Your task to perform on an android device: Add "dell xps" to the cart on costco.com Image 0: 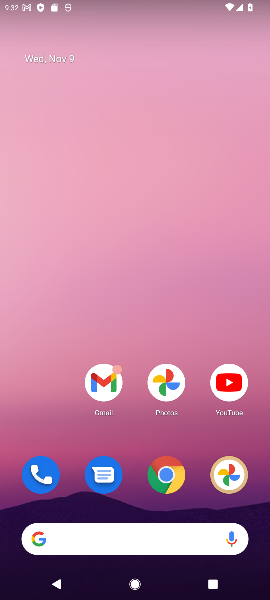
Step 0: click (171, 474)
Your task to perform on an android device: Add "dell xps" to the cart on costco.com Image 1: 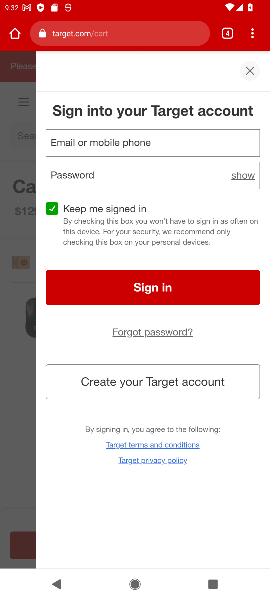
Step 1: click (231, 35)
Your task to perform on an android device: Add "dell xps" to the cart on costco.com Image 2: 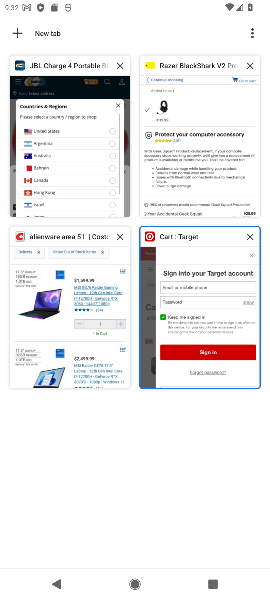
Step 2: click (62, 281)
Your task to perform on an android device: Add "dell xps" to the cart on costco.com Image 3: 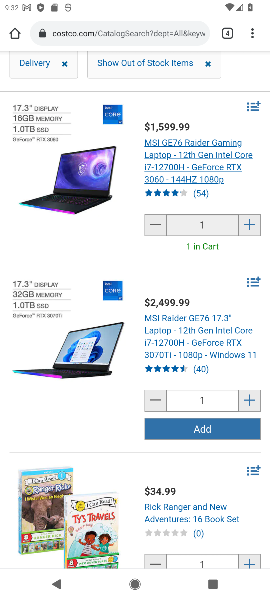
Step 3: drag from (124, 198) to (86, 594)
Your task to perform on an android device: Add "dell xps" to the cart on costco.com Image 4: 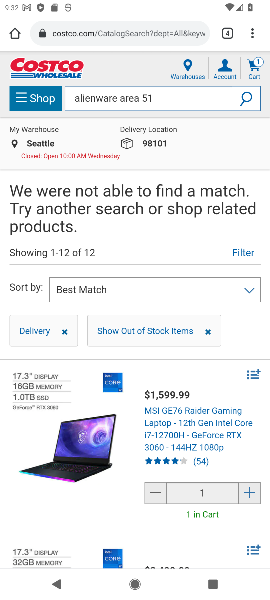
Step 4: click (184, 99)
Your task to perform on an android device: Add "dell xps" to the cart on costco.com Image 5: 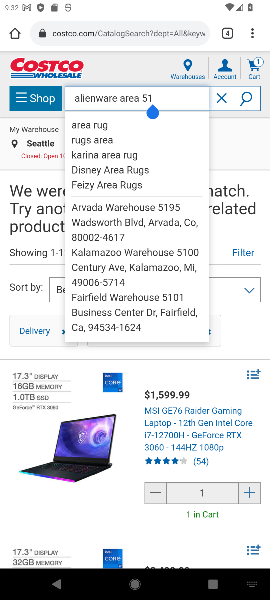
Step 5: click (222, 99)
Your task to perform on an android device: Add "dell xps" to the cart on costco.com Image 6: 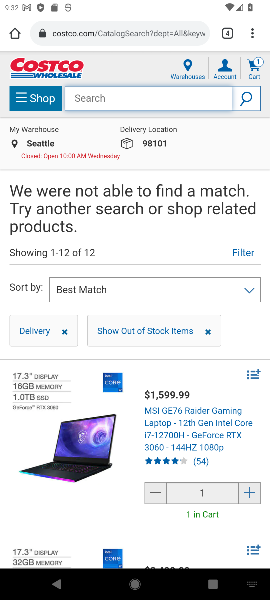
Step 6: type "dell xps"
Your task to perform on an android device: Add "dell xps" to the cart on costco.com Image 7: 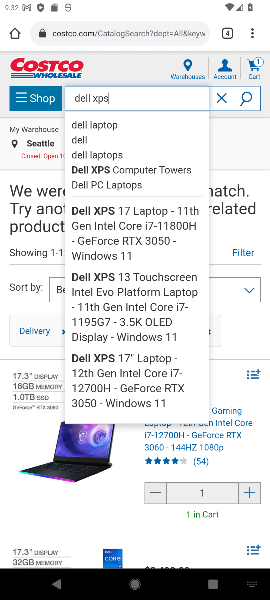
Step 7: click (123, 170)
Your task to perform on an android device: Add "dell xps" to the cart on costco.com Image 8: 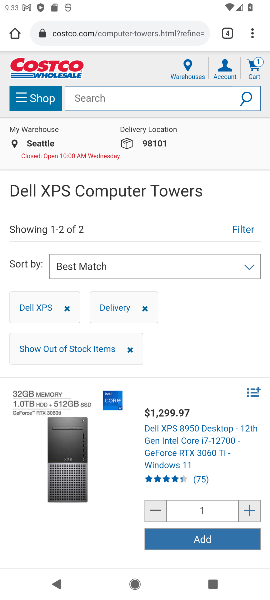
Step 8: click (198, 542)
Your task to perform on an android device: Add "dell xps" to the cart on costco.com Image 9: 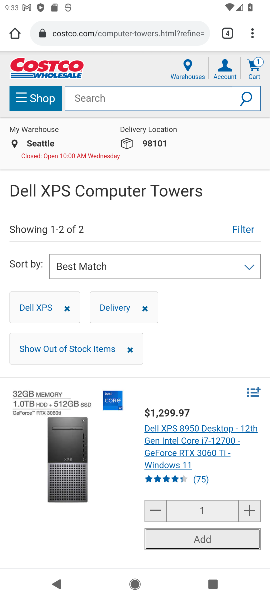
Step 9: task complete